Your task to perform on an android device: turn on bluetooth scan Image 0: 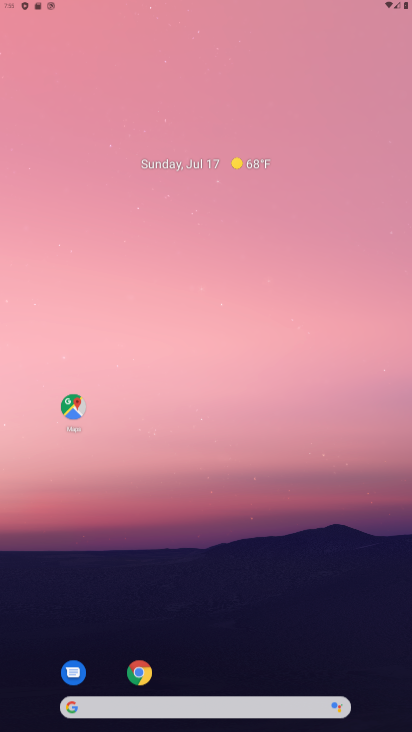
Step 0: click (179, 13)
Your task to perform on an android device: turn on bluetooth scan Image 1: 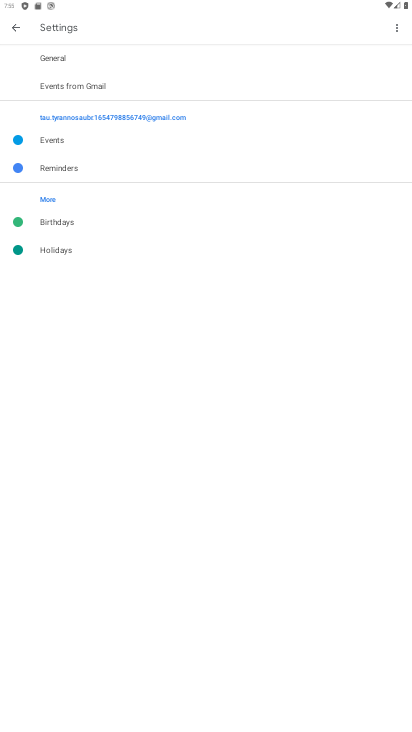
Step 1: press home button
Your task to perform on an android device: turn on bluetooth scan Image 2: 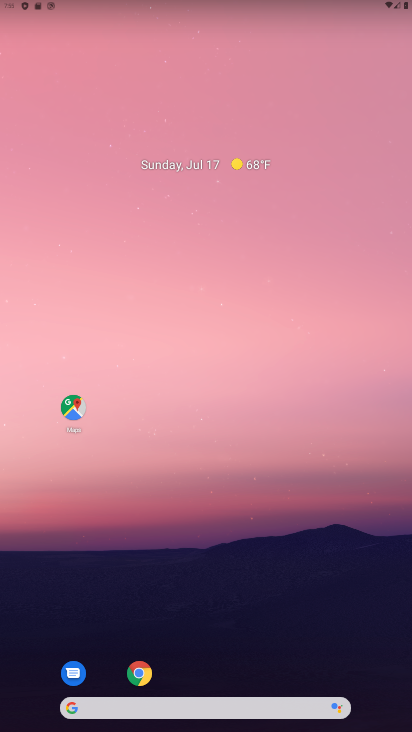
Step 2: drag from (245, 616) to (232, 74)
Your task to perform on an android device: turn on bluetooth scan Image 3: 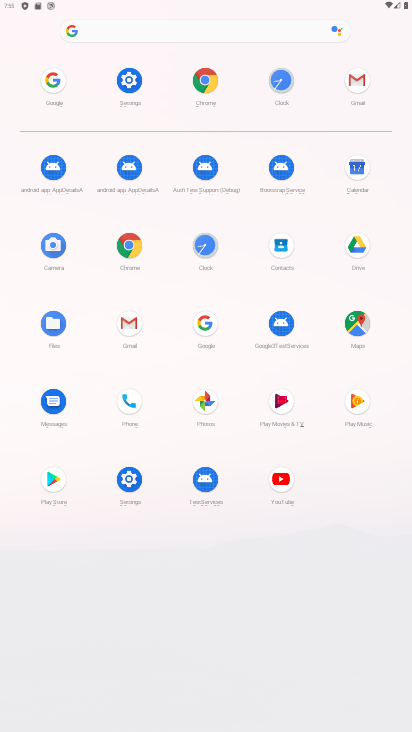
Step 3: click (131, 92)
Your task to perform on an android device: turn on bluetooth scan Image 4: 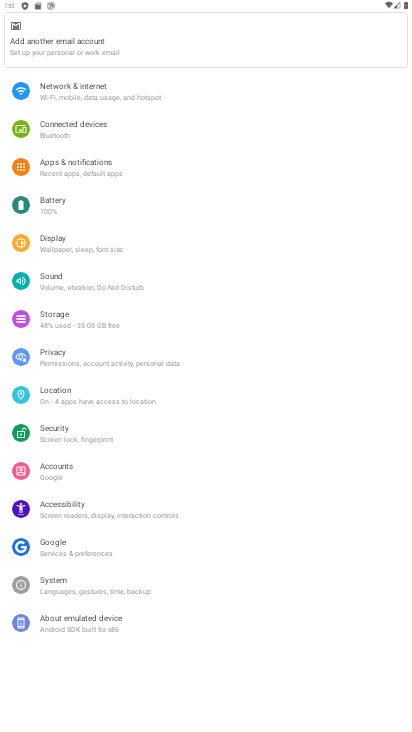
Step 4: click (45, 394)
Your task to perform on an android device: turn on bluetooth scan Image 5: 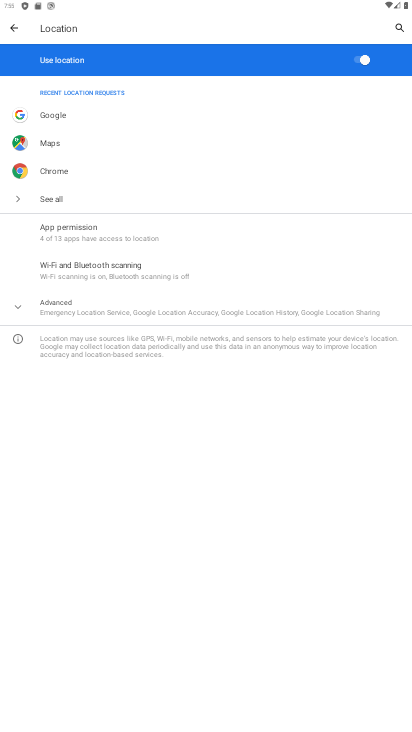
Step 5: click (59, 266)
Your task to perform on an android device: turn on bluetooth scan Image 6: 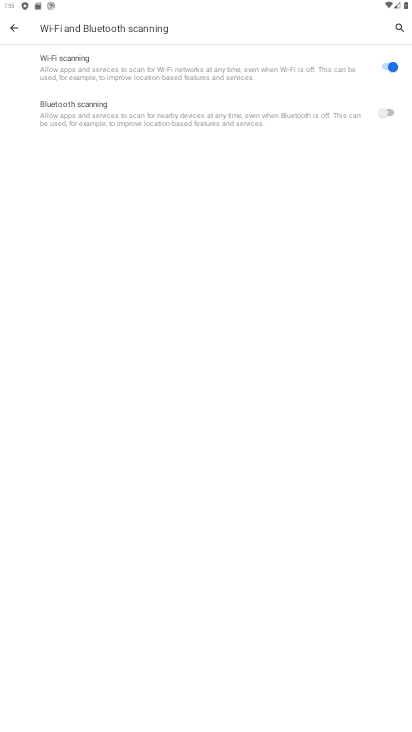
Step 6: click (384, 115)
Your task to perform on an android device: turn on bluetooth scan Image 7: 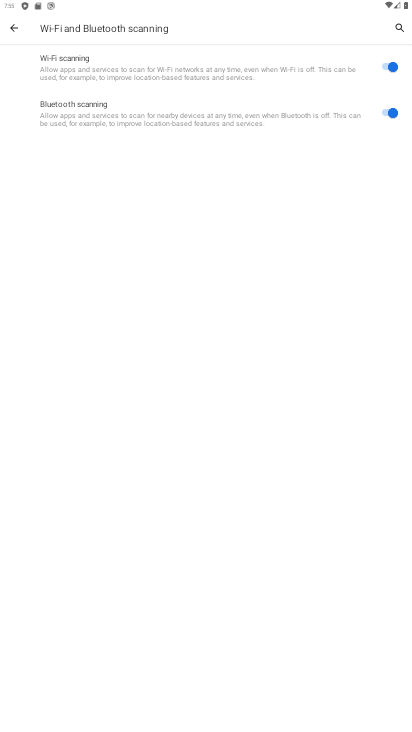
Step 7: task complete